Your task to perform on an android device: set default search engine in the chrome app Image 0: 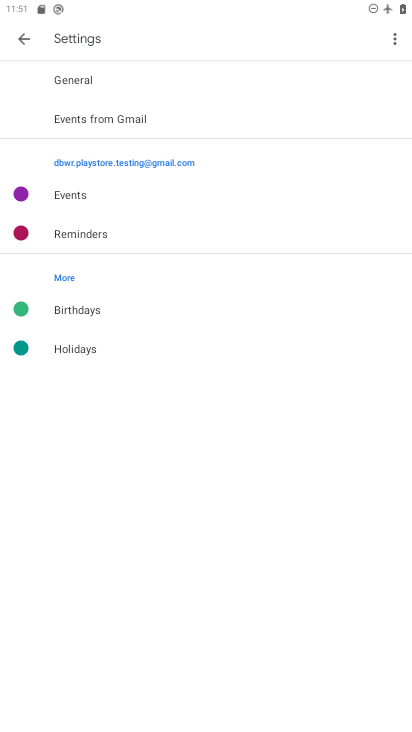
Step 0: press home button
Your task to perform on an android device: set default search engine in the chrome app Image 1: 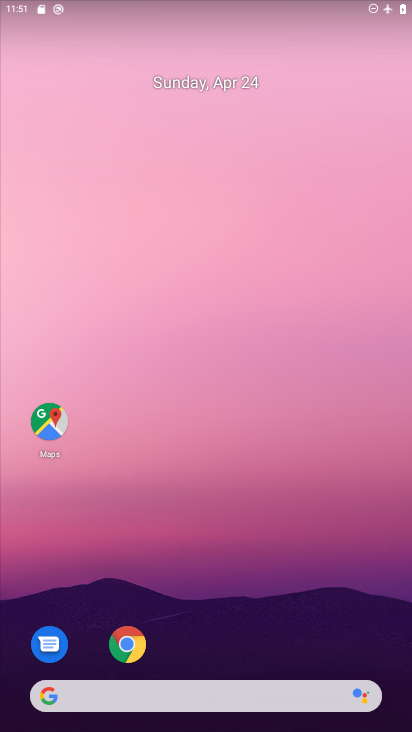
Step 1: click (135, 638)
Your task to perform on an android device: set default search engine in the chrome app Image 2: 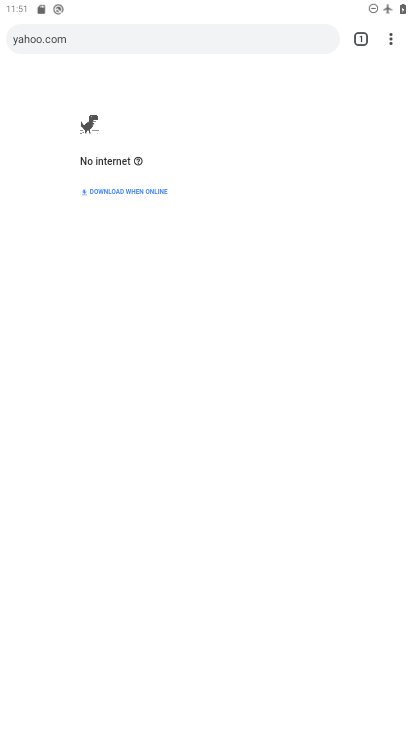
Step 2: click (393, 41)
Your task to perform on an android device: set default search engine in the chrome app Image 3: 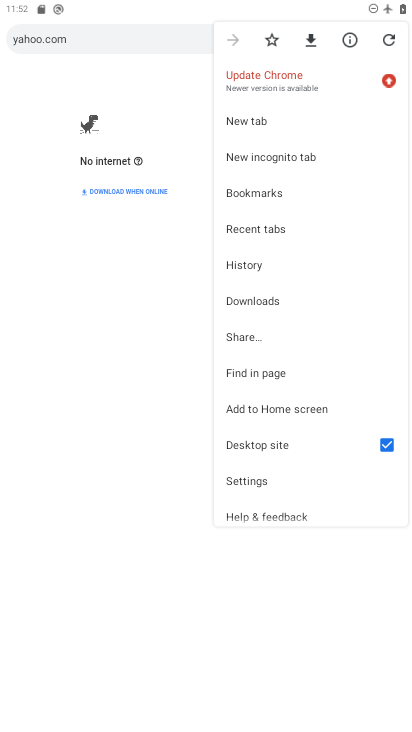
Step 3: click (262, 477)
Your task to perform on an android device: set default search engine in the chrome app Image 4: 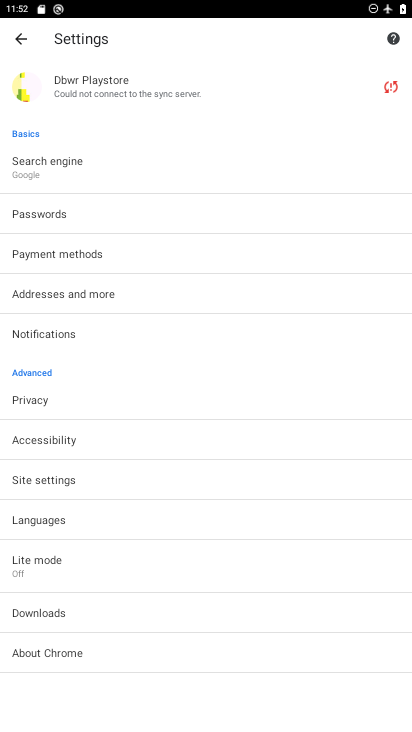
Step 4: click (70, 160)
Your task to perform on an android device: set default search engine in the chrome app Image 5: 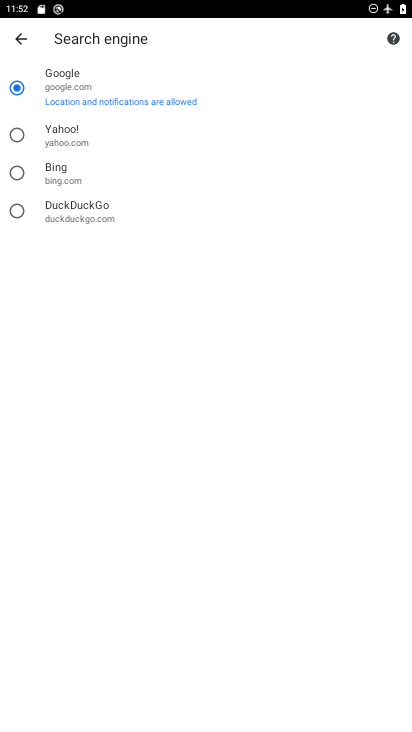
Step 5: task complete